Your task to perform on an android device: open app "Nova Launcher" (install if not already installed) Image 0: 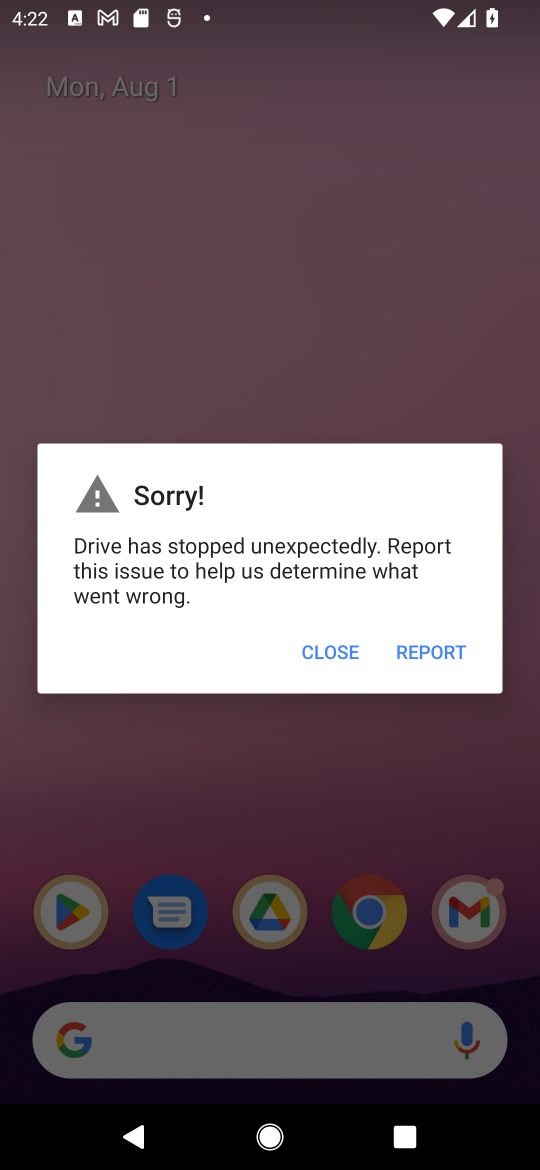
Step 0: press home button
Your task to perform on an android device: open app "Nova Launcher" (install if not already installed) Image 1: 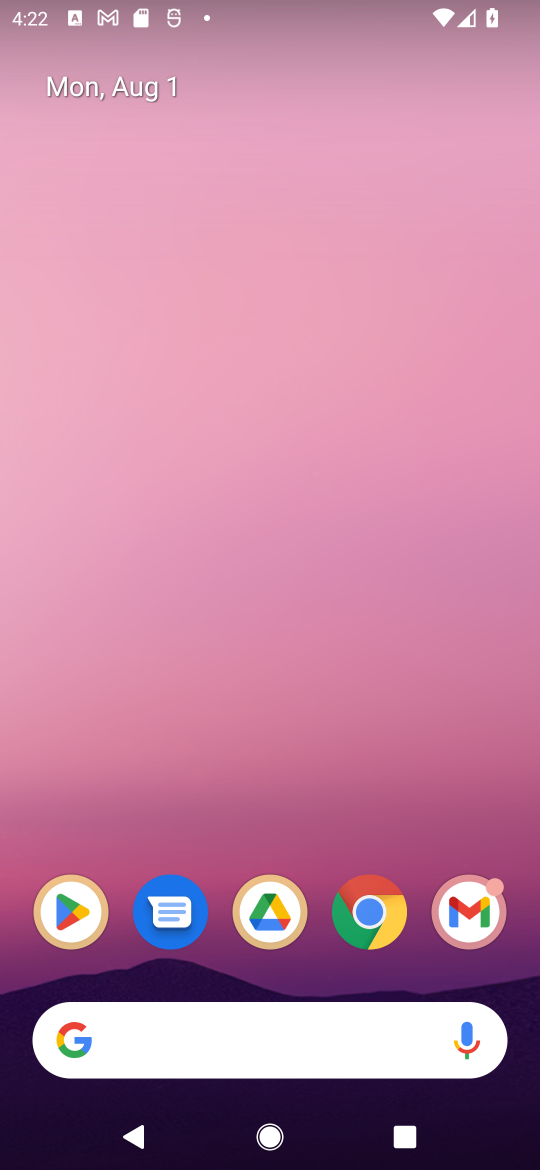
Step 1: click (97, 938)
Your task to perform on an android device: open app "Nova Launcher" (install if not already installed) Image 2: 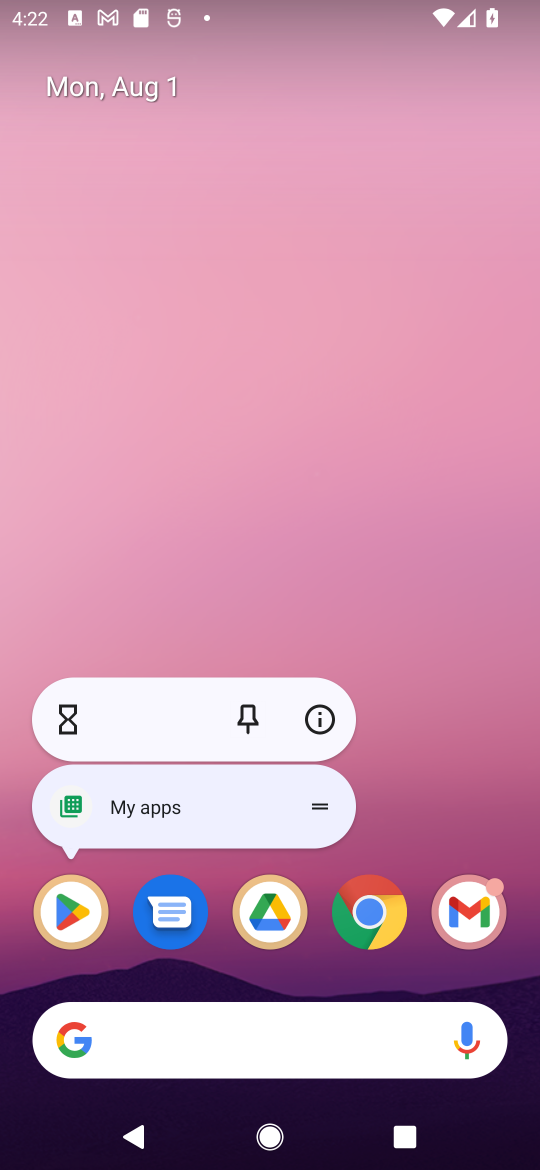
Step 2: click (76, 911)
Your task to perform on an android device: open app "Nova Launcher" (install if not already installed) Image 3: 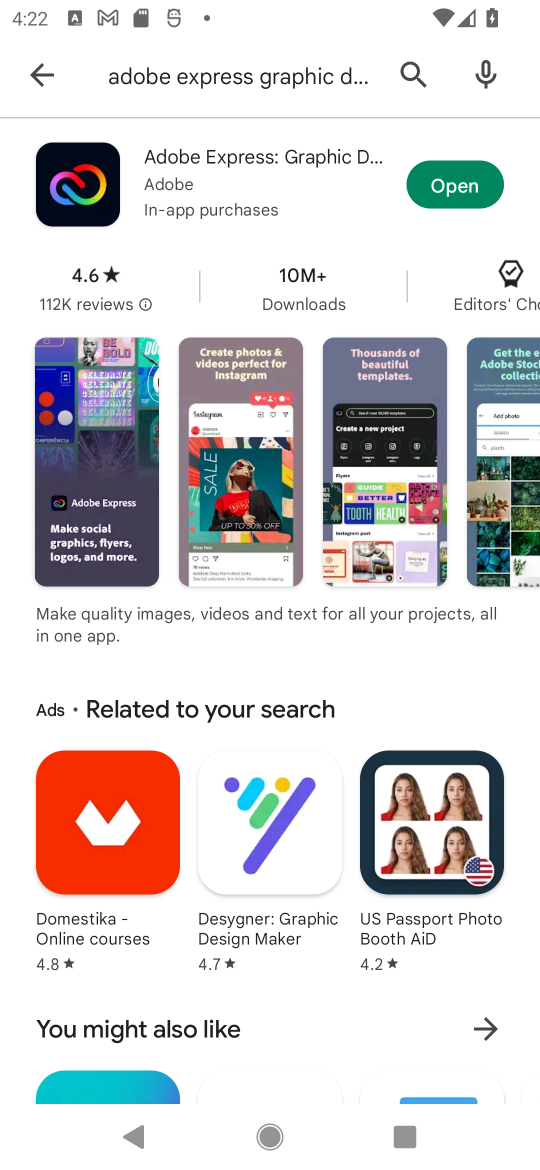
Step 3: click (411, 56)
Your task to perform on an android device: open app "Nova Launcher" (install if not already installed) Image 4: 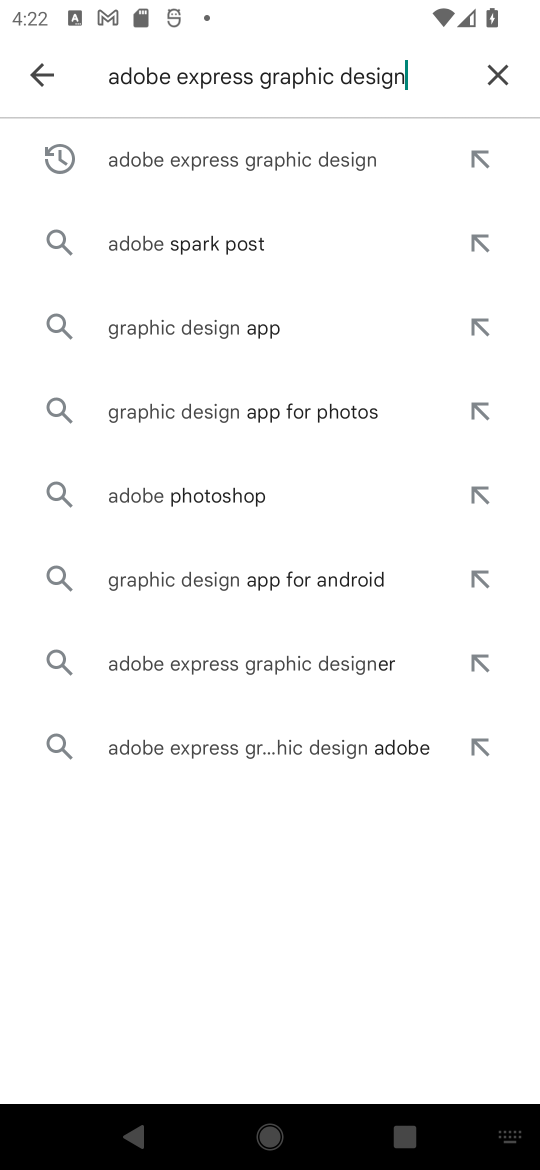
Step 4: click (491, 86)
Your task to perform on an android device: open app "Nova Launcher" (install if not already installed) Image 5: 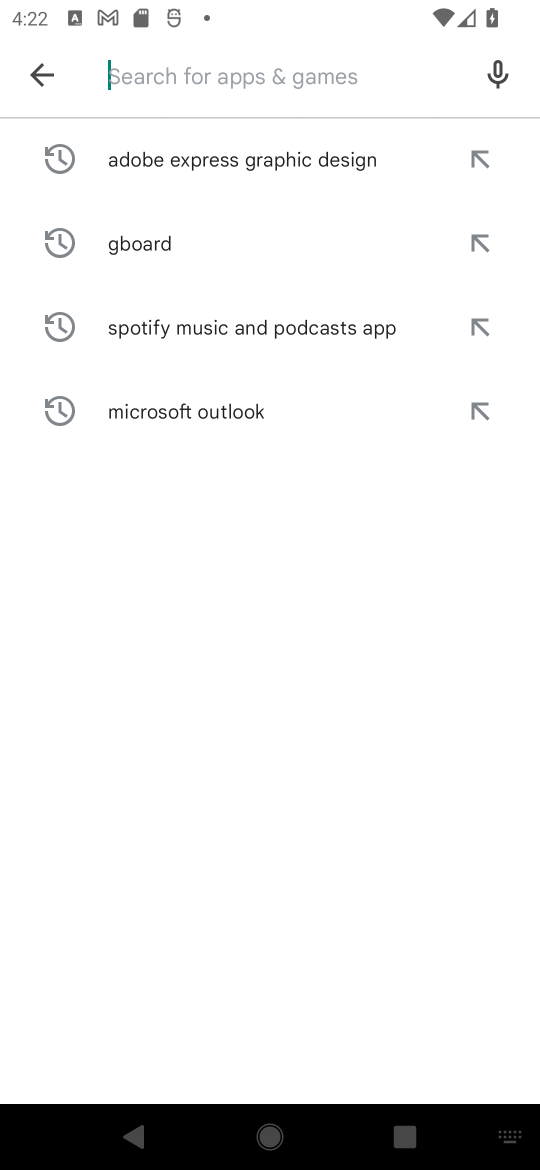
Step 5: type "Nova Launcher"
Your task to perform on an android device: open app "Nova Launcher" (install if not already installed) Image 6: 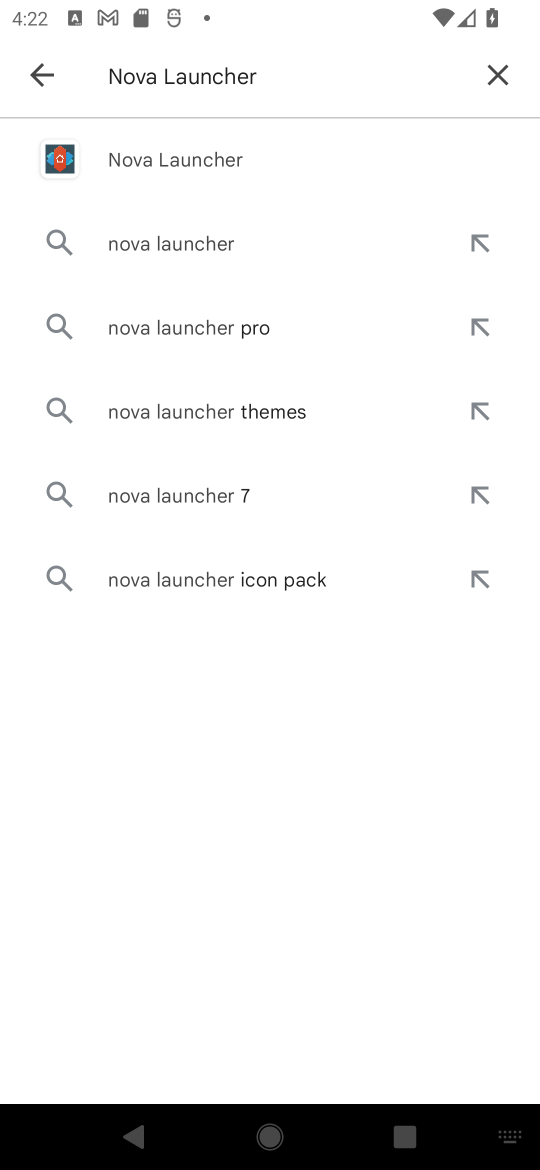
Step 6: click (212, 169)
Your task to perform on an android device: open app "Nova Launcher" (install if not already installed) Image 7: 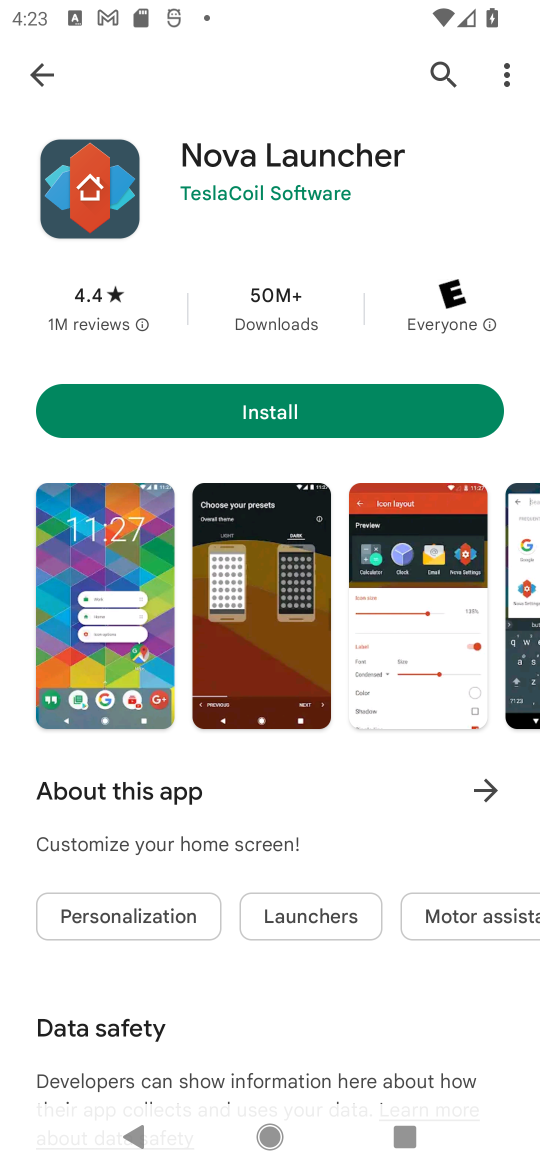
Step 7: click (237, 403)
Your task to perform on an android device: open app "Nova Launcher" (install if not already installed) Image 8: 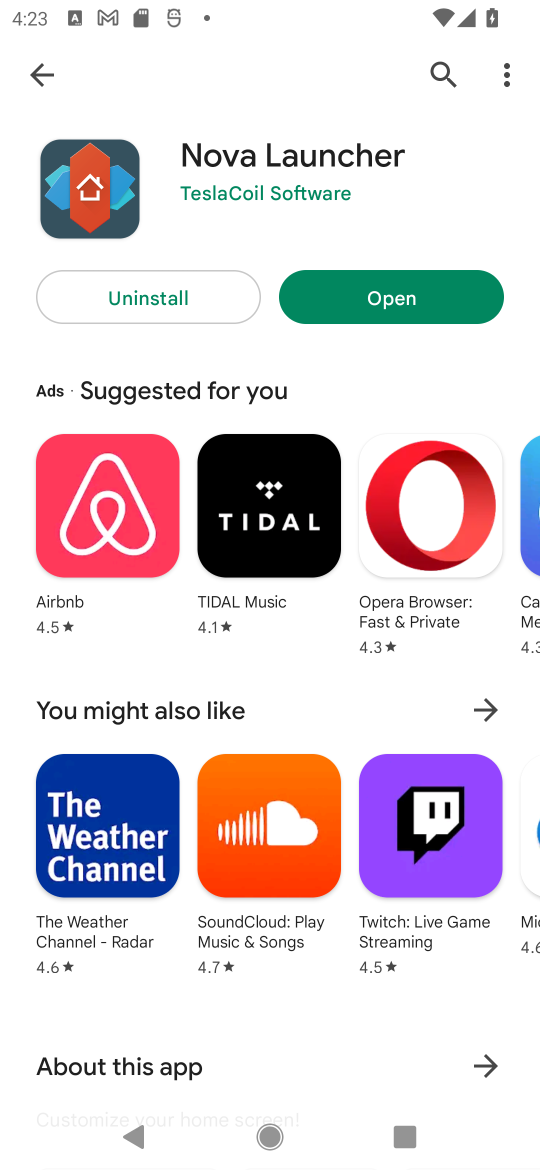
Step 8: click (352, 289)
Your task to perform on an android device: open app "Nova Launcher" (install if not already installed) Image 9: 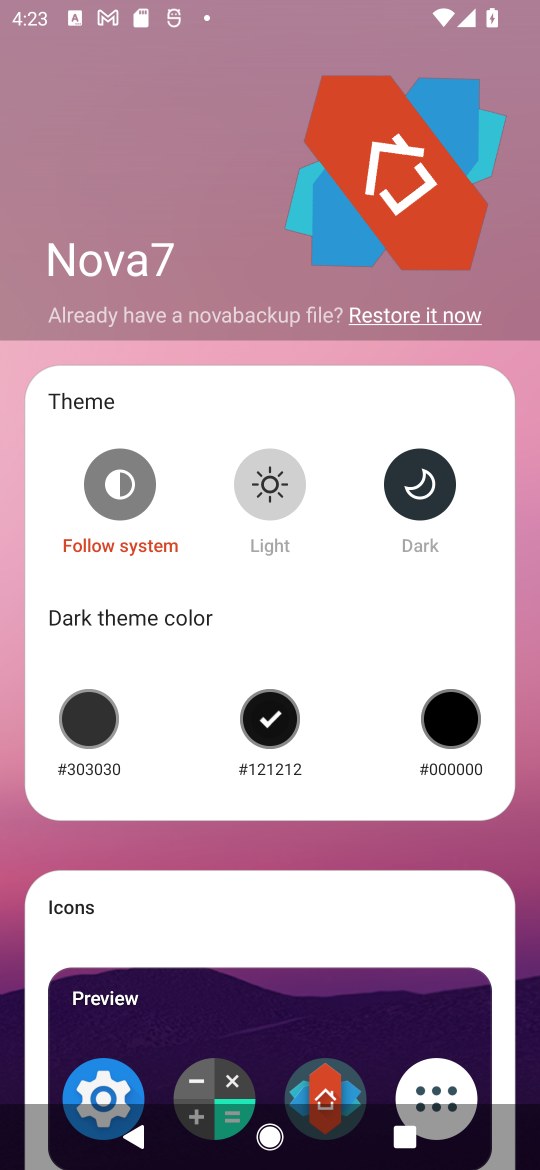
Step 9: task complete